Your task to perform on an android device: turn vacation reply on in the gmail app Image 0: 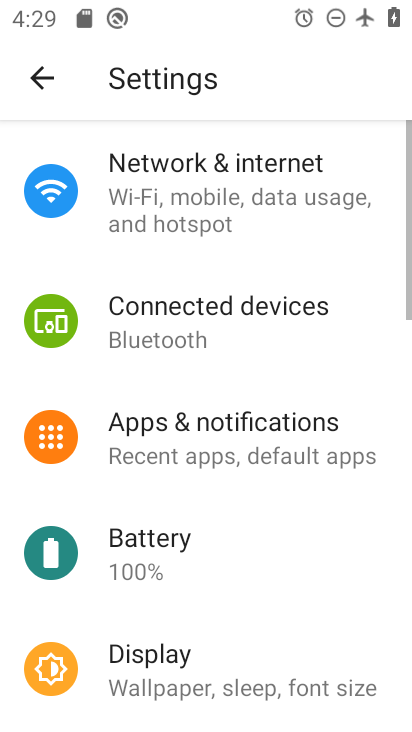
Step 0: press back button
Your task to perform on an android device: turn vacation reply on in the gmail app Image 1: 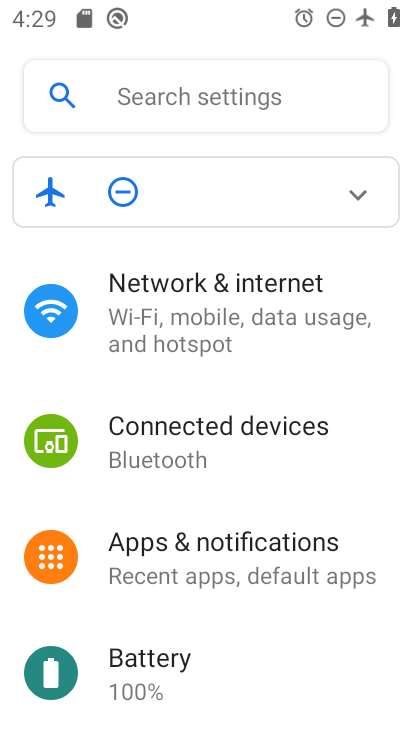
Step 1: press back button
Your task to perform on an android device: turn vacation reply on in the gmail app Image 2: 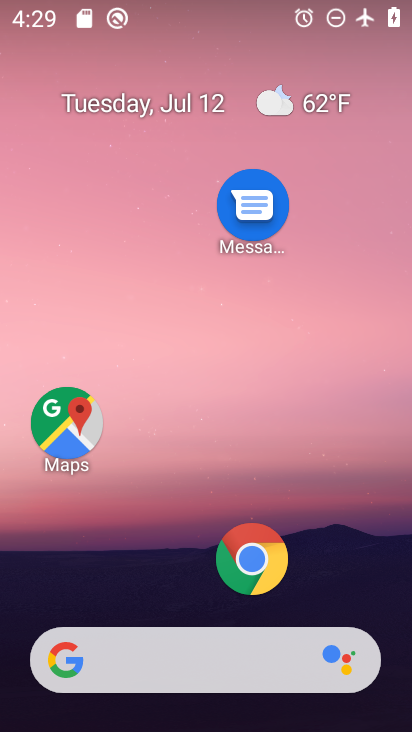
Step 2: drag from (155, 558) to (166, 14)
Your task to perform on an android device: turn vacation reply on in the gmail app Image 3: 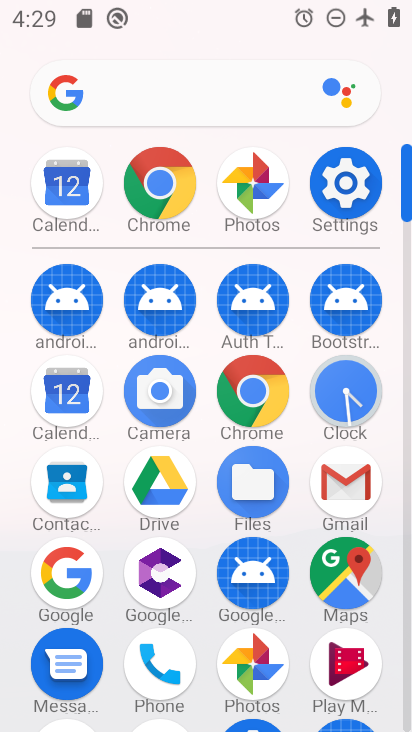
Step 3: click (353, 499)
Your task to perform on an android device: turn vacation reply on in the gmail app Image 4: 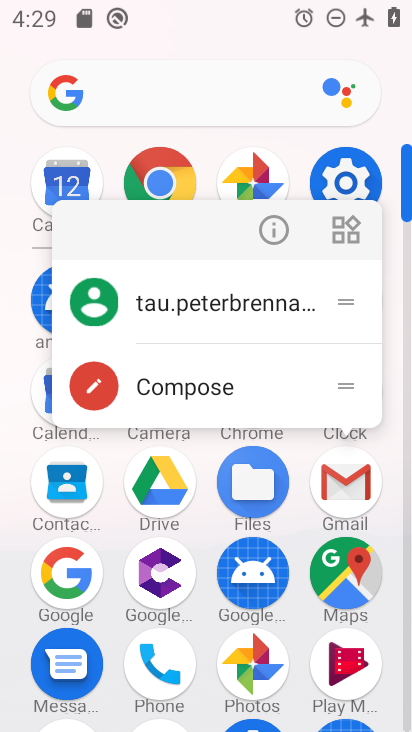
Step 4: click (337, 491)
Your task to perform on an android device: turn vacation reply on in the gmail app Image 5: 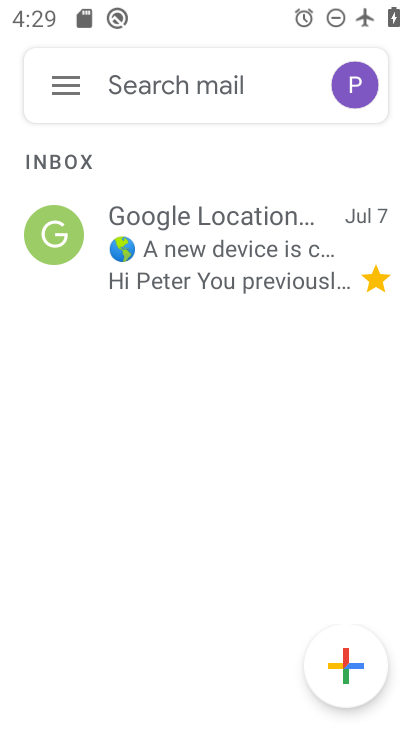
Step 5: click (53, 82)
Your task to perform on an android device: turn vacation reply on in the gmail app Image 6: 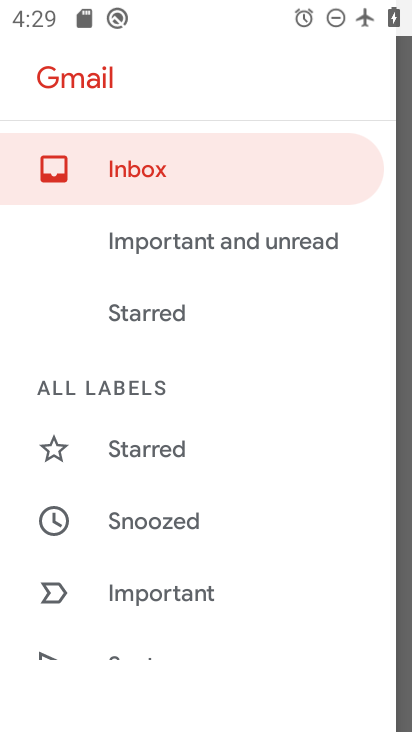
Step 6: drag from (213, 626) to (311, 65)
Your task to perform on an android device: turn vacation reply on in the gmail app Image 7: 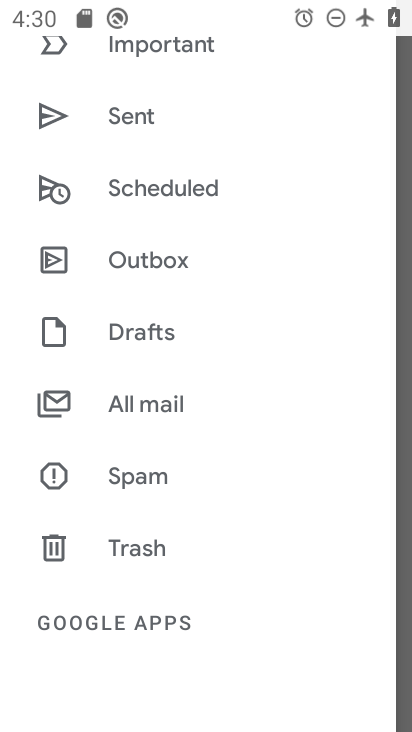
Step 7: drag from (116, 639) to (288, 26)
Your task to perform on an android device: turn vacation reply on in the gmail app Image 8: 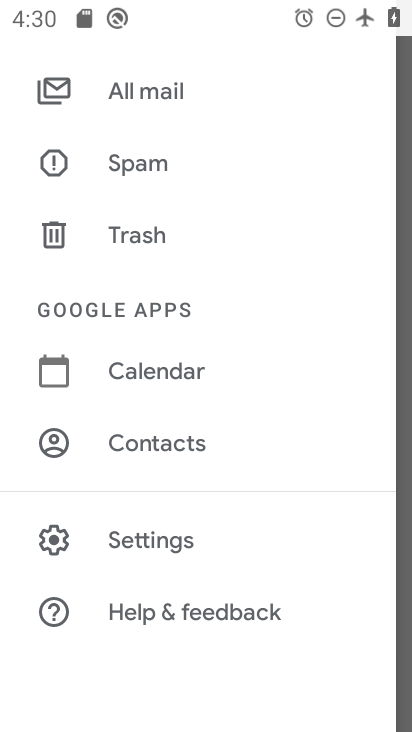
Step 8: click (153, 541)
Your task to perform on an android device: turn vacation reply on in the gmail app Image 9: 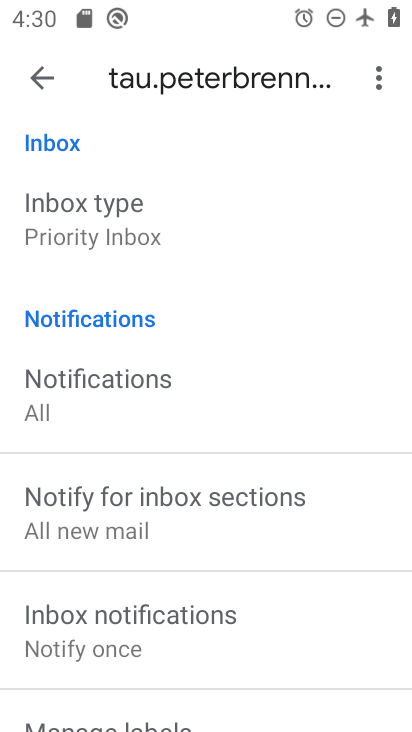
Step 9: drag from (126, 653) to (255, 111)
Your task to perform on an android device: turn vacation reply on in the gmail app Image 10: 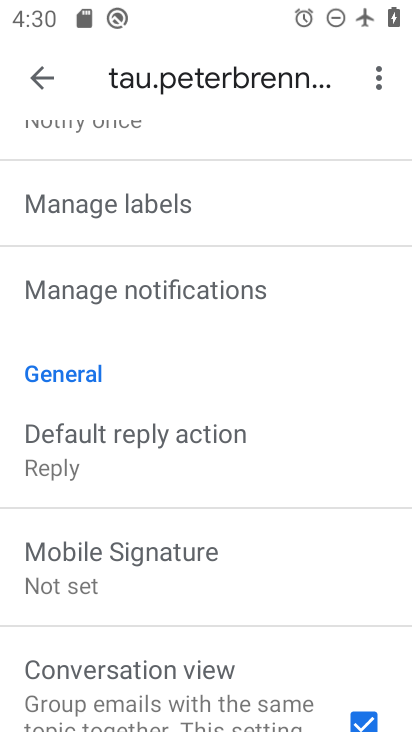
Step 10: drag from (189, 658) to (268, 121)
Your task to perform on an android device: turn vacation reply on in the gmail app Image 11: 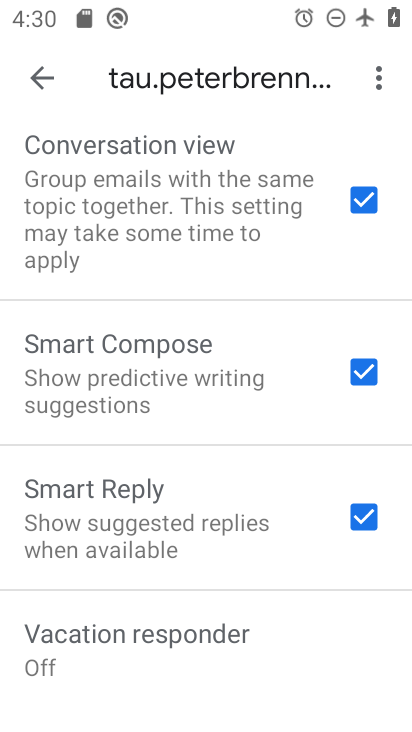
Step 11: drag from (197, 676) to (285, 161)
Your task to perform on an android device: turn vacation reply on in the gmail app Image 12: 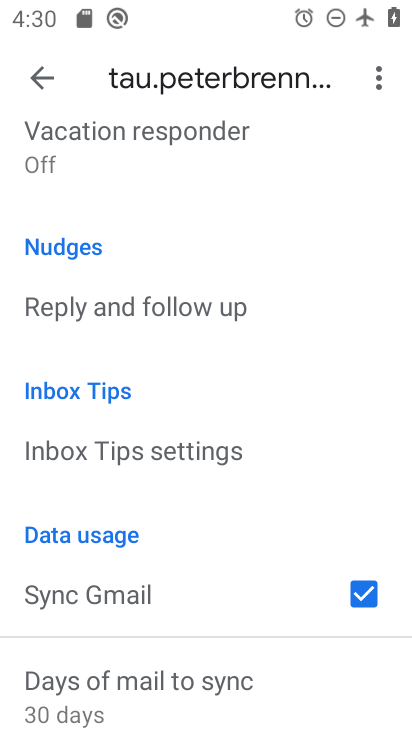
Step 12: click (167, 166)
Your task to perform on an android device: turn vacation reply on in the gmail app Image 13: 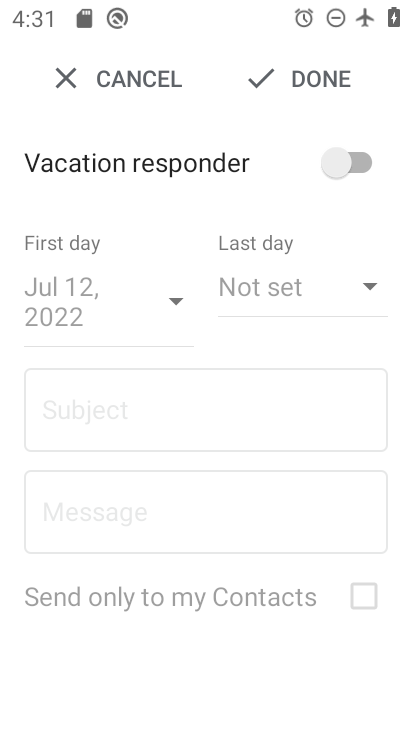
Step 13: click (343, 154)
Your task to perform on an android device: turn vacation reply on in the gmail app Image 14: 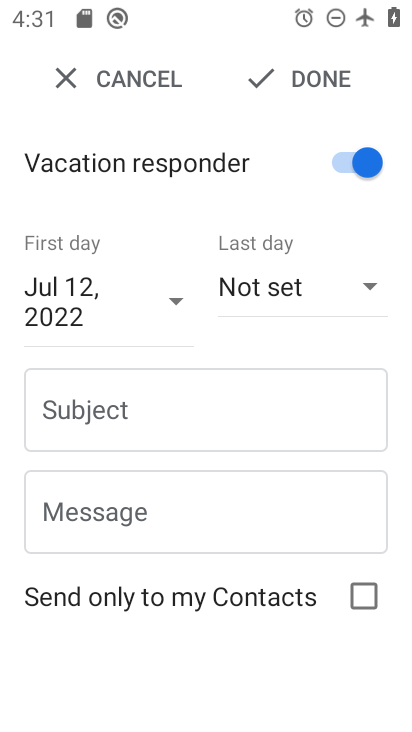
Step 14: task complete